Your task to perform on an android device: turn on notifications settings in the gmail app Image 0: 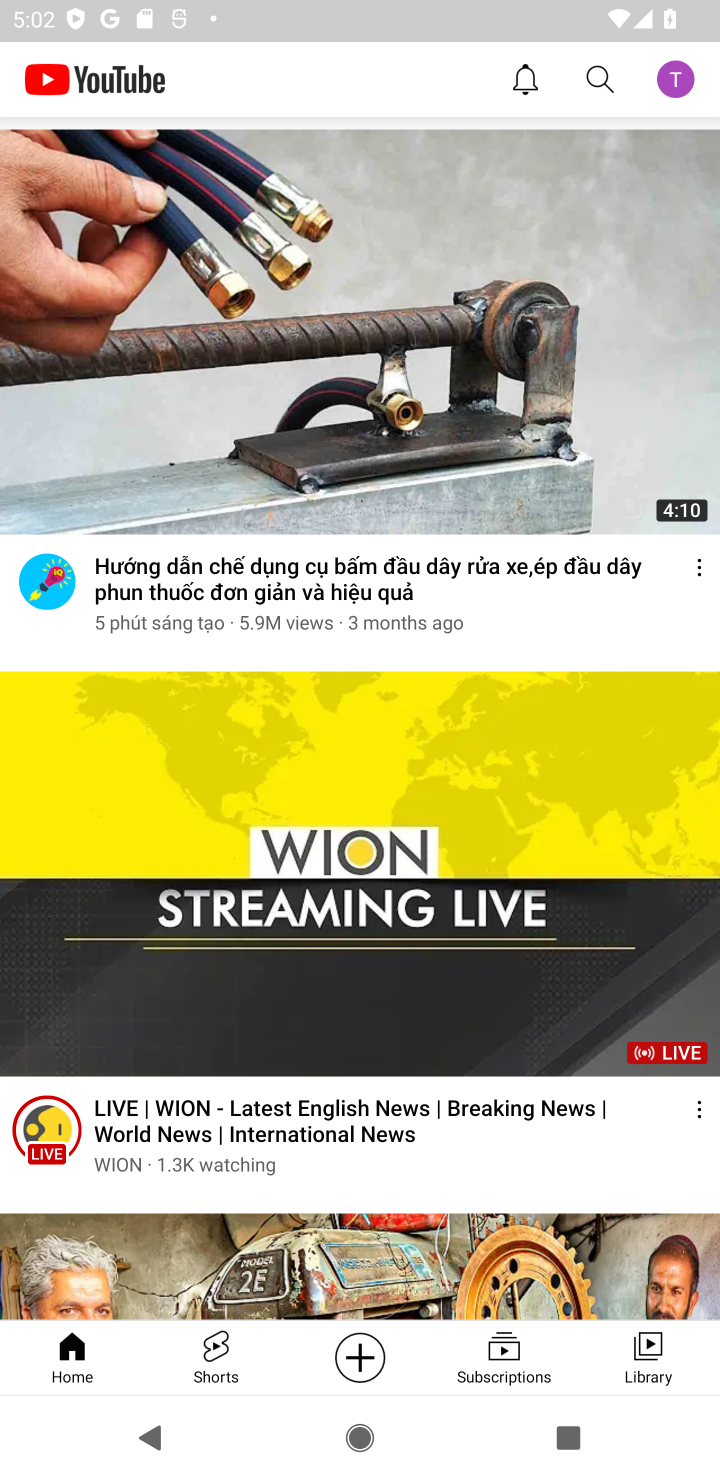
Step 0: press back button
Your task to perform on an android device: turn on notifications settings in the gmail app Image 1: 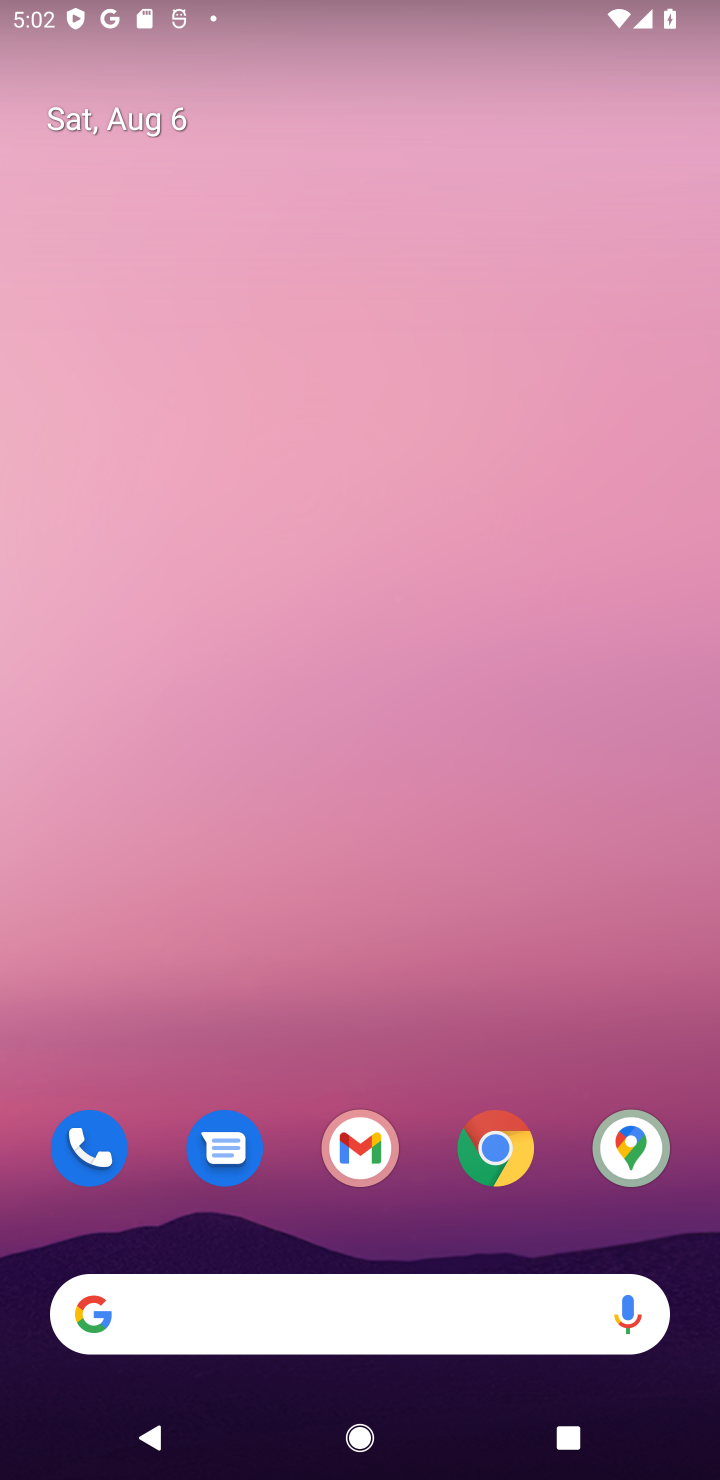
Step 1: press back button
Your task to perform on an android device: turn on notifications settings in the gmail app Image 2: 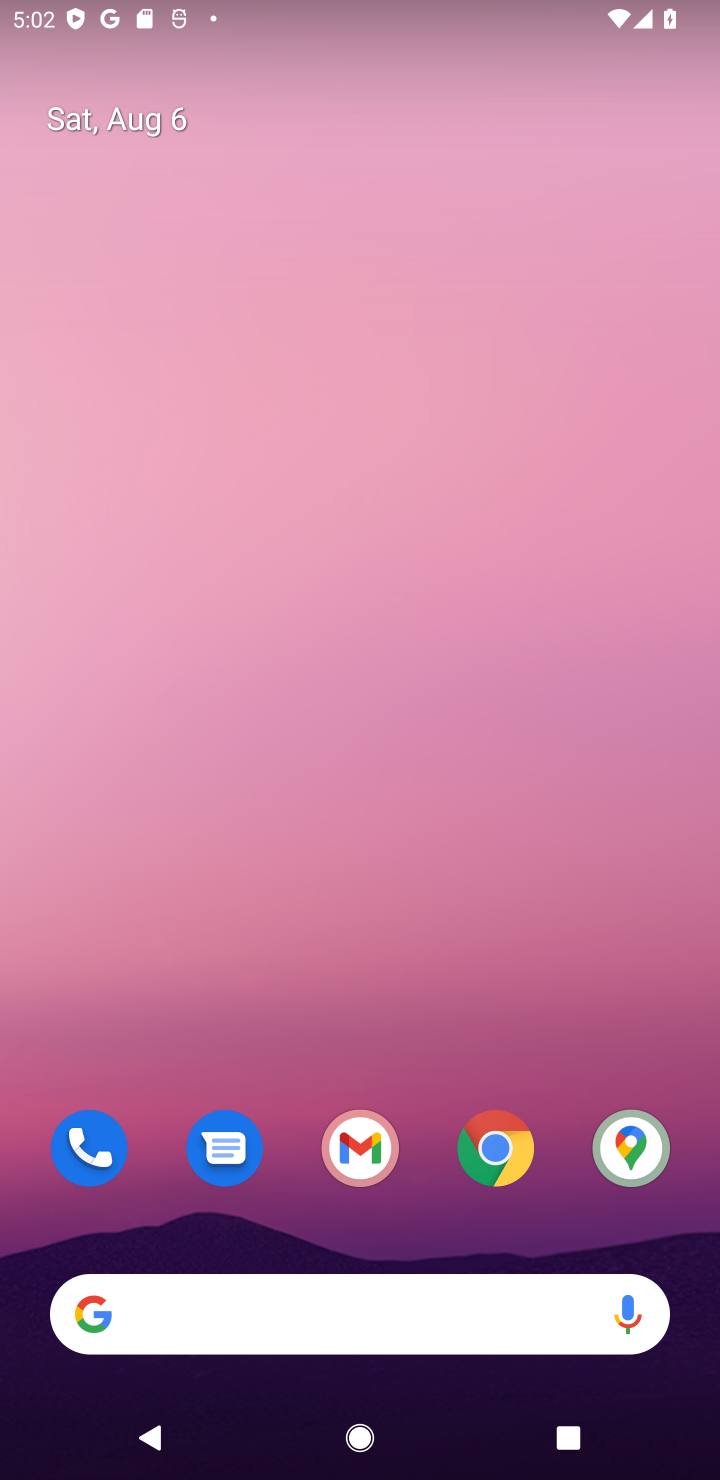
Step 2: drag from (448, 1242) to (490, 97)
Your task to perform on an android device: turn on notifications settings in the gmail app Image 3: 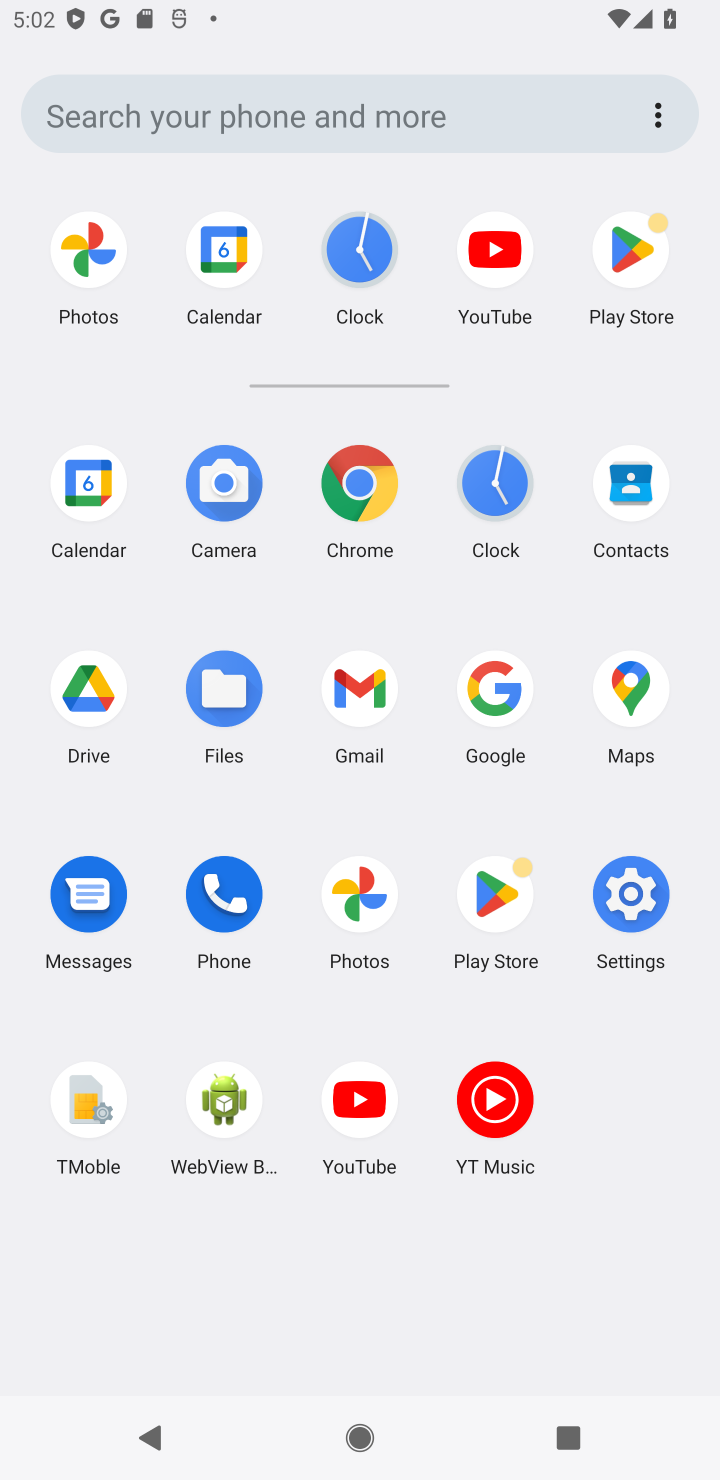
Step 3: click (639, 913)
Your task to perform on an android device: turn on notifications settings in the gmail app Image 4: 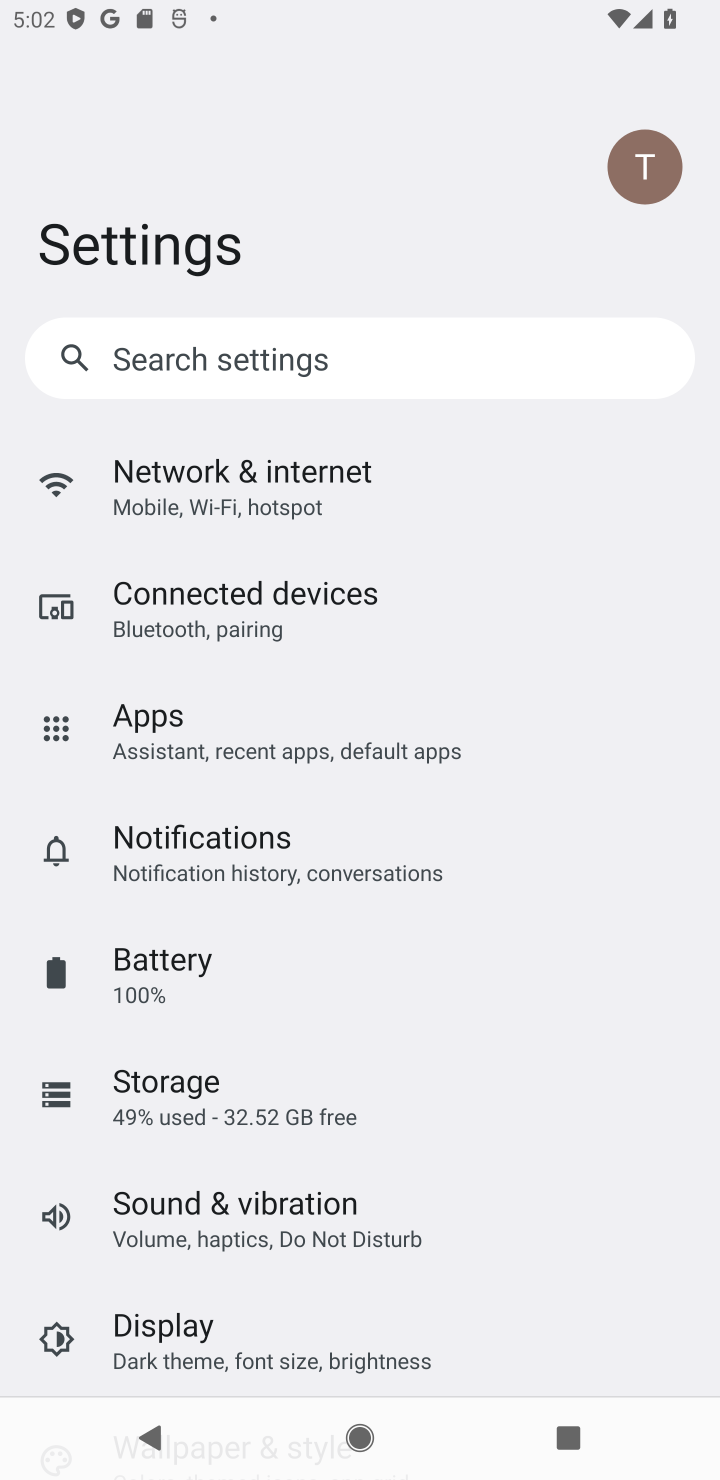
Step 4: press home button
Your task to perform on an android device: turn on notifications settings in the gmail app Image 5: 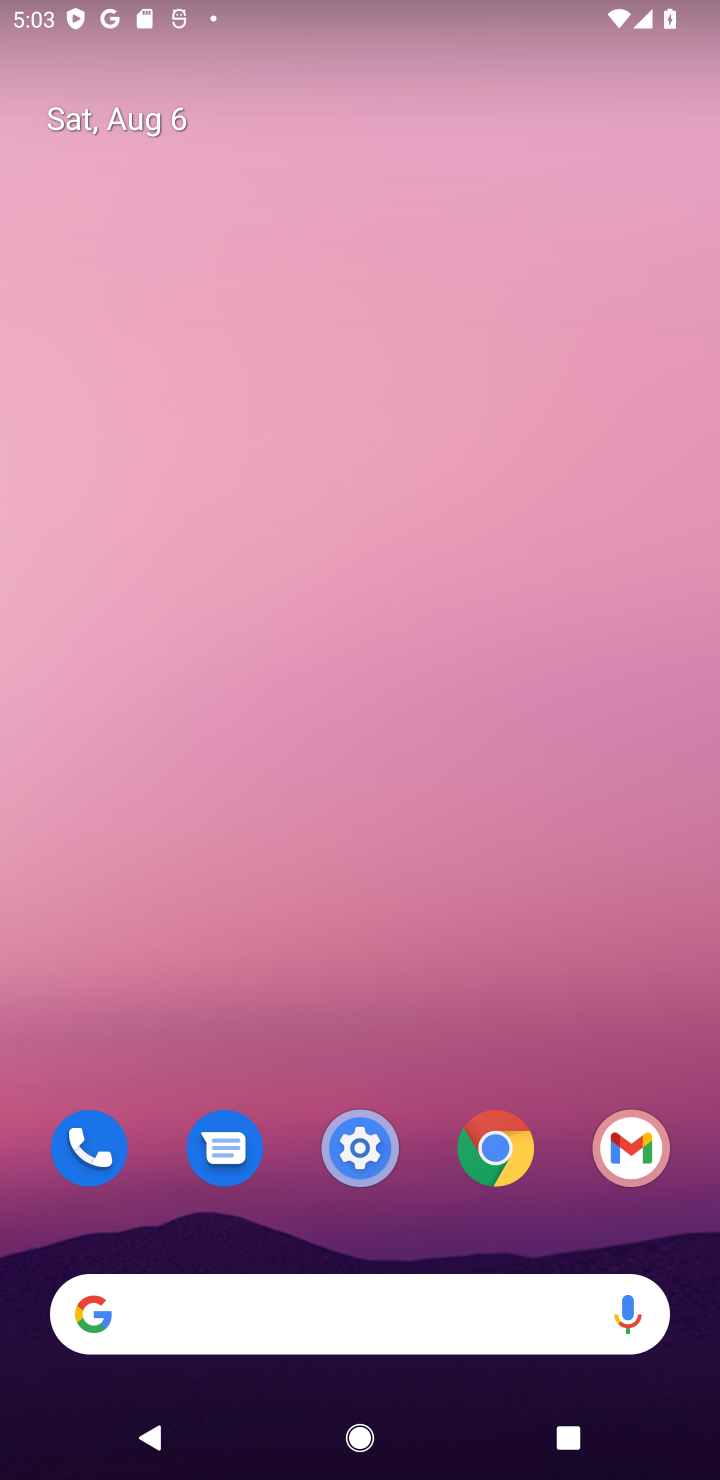
Step 5: drag from (384, 1269) to (293, 30)
Your task to perform on an android device: turn on notifications settings in the gmail app Image 6: 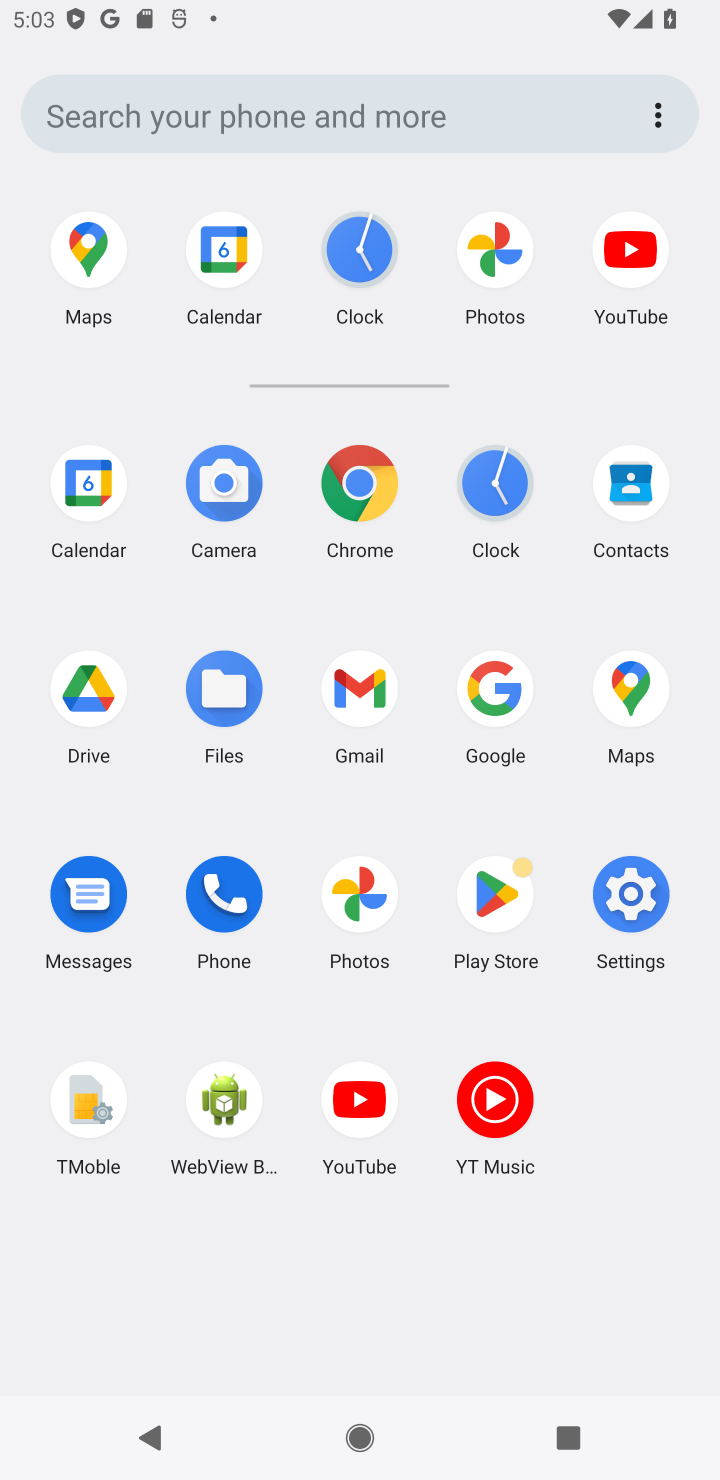
Step 6: click (371, 655)
Your task to perform on an android device: turn on notifications settings in the gmail app Image 7: 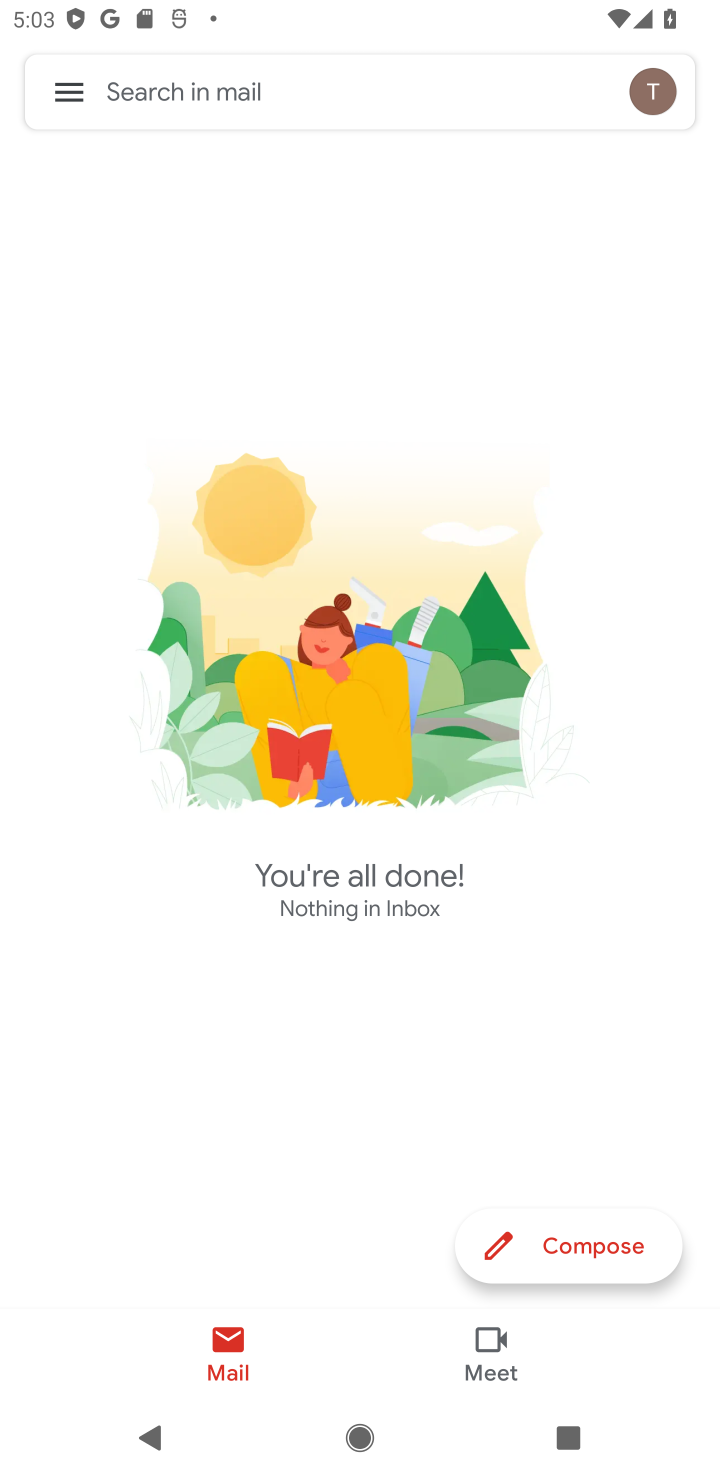
Step 7: click (67, 103)
Your task to perform on an android device: turn on notifications settings in the gmail app Image 8: 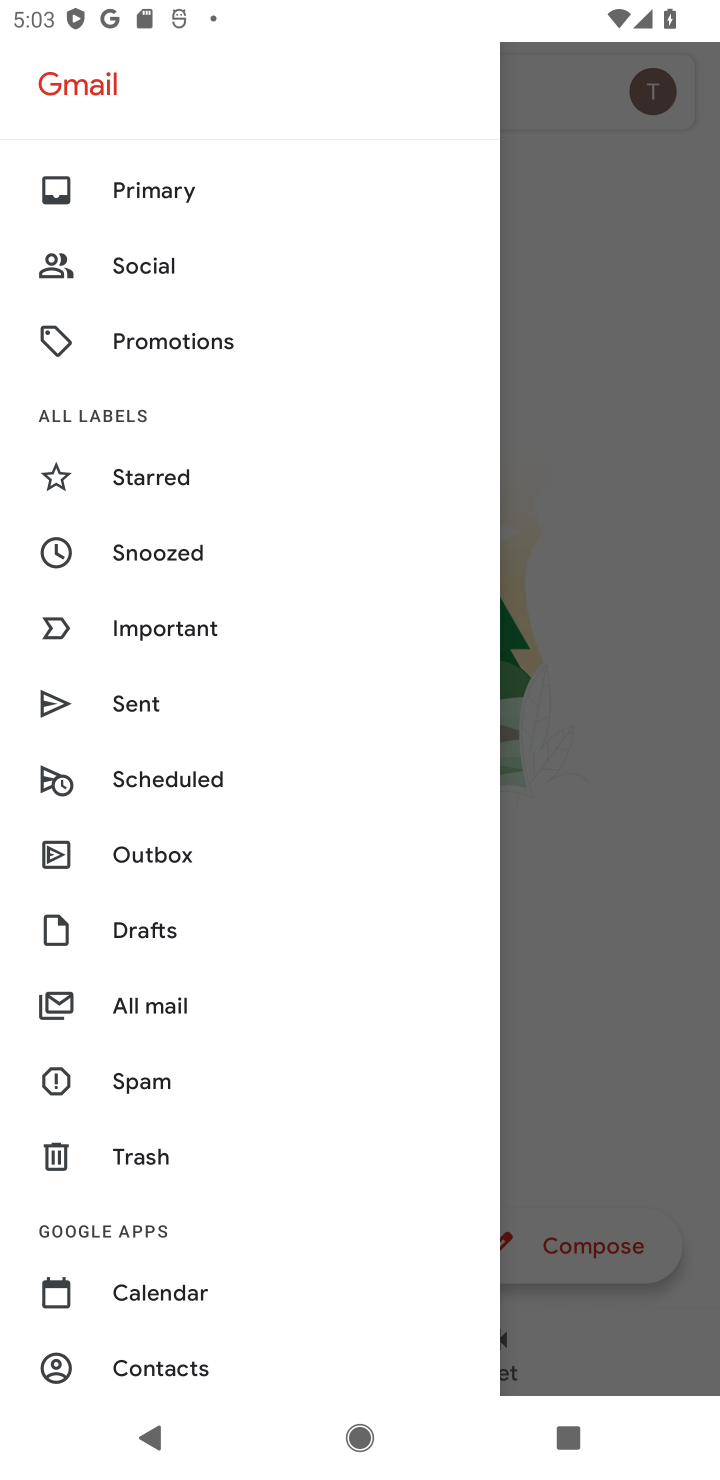
Step 8: drag from (260, 1228) to (184, 268)
Your task to perform on an android device: turn on notifications settings in the gmail app Image 9: 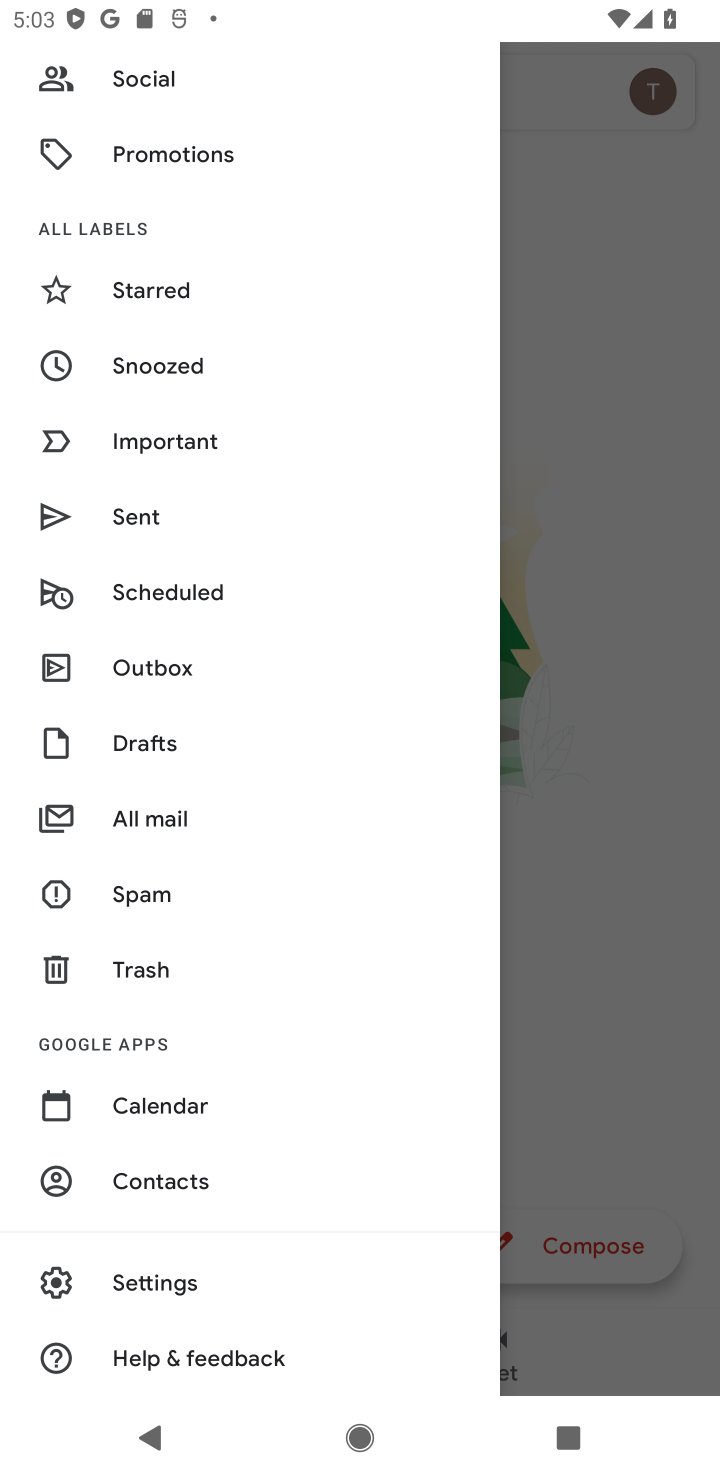
Step 9: click (128, 1299)
Your task to perform on an android device: turn on notifications settings in the gmail app Image 10: 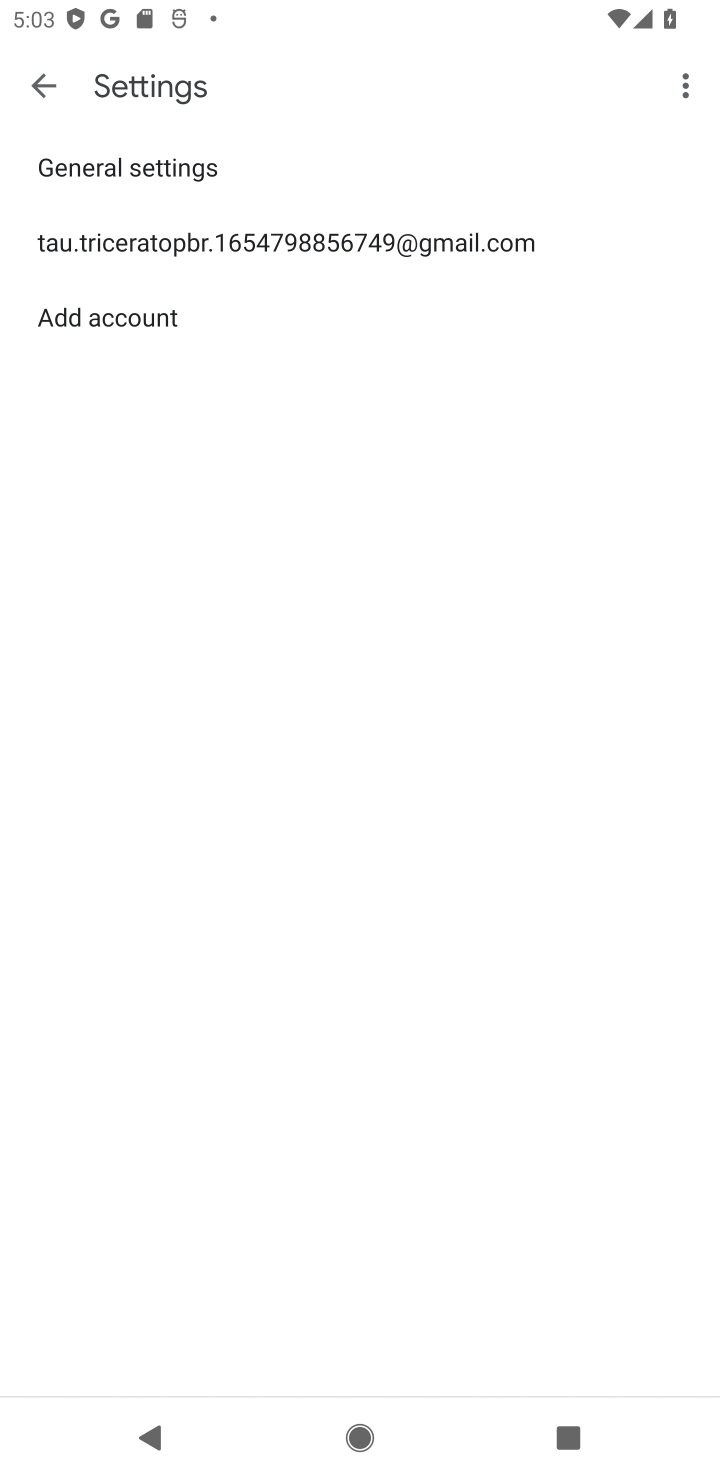
Step 10: click (117, 153)
Your task to perform on an android device: turn on notifications settings in the gmail app Image 11: 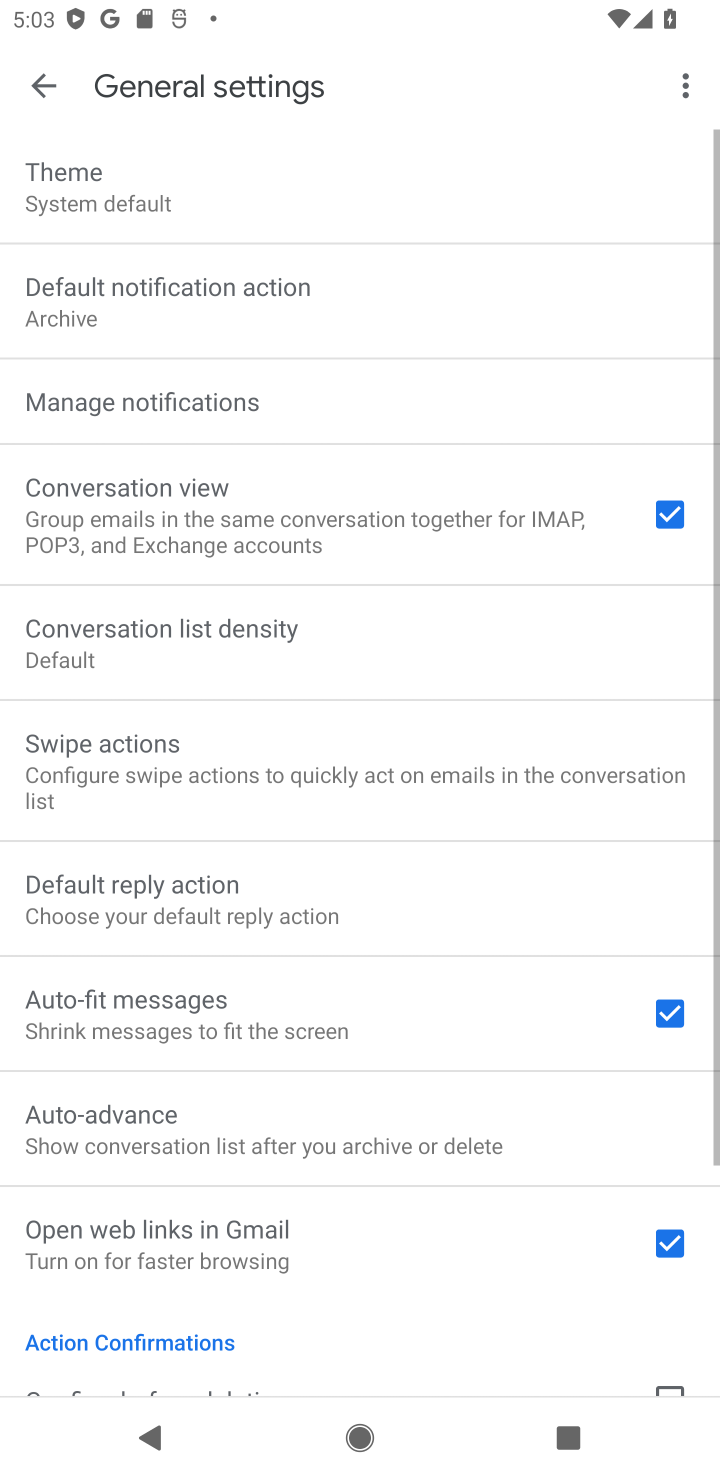
Step 11: click (183, 413)
Your task to perform on an android device: turn on notifications settings in the gmail app Image 12: 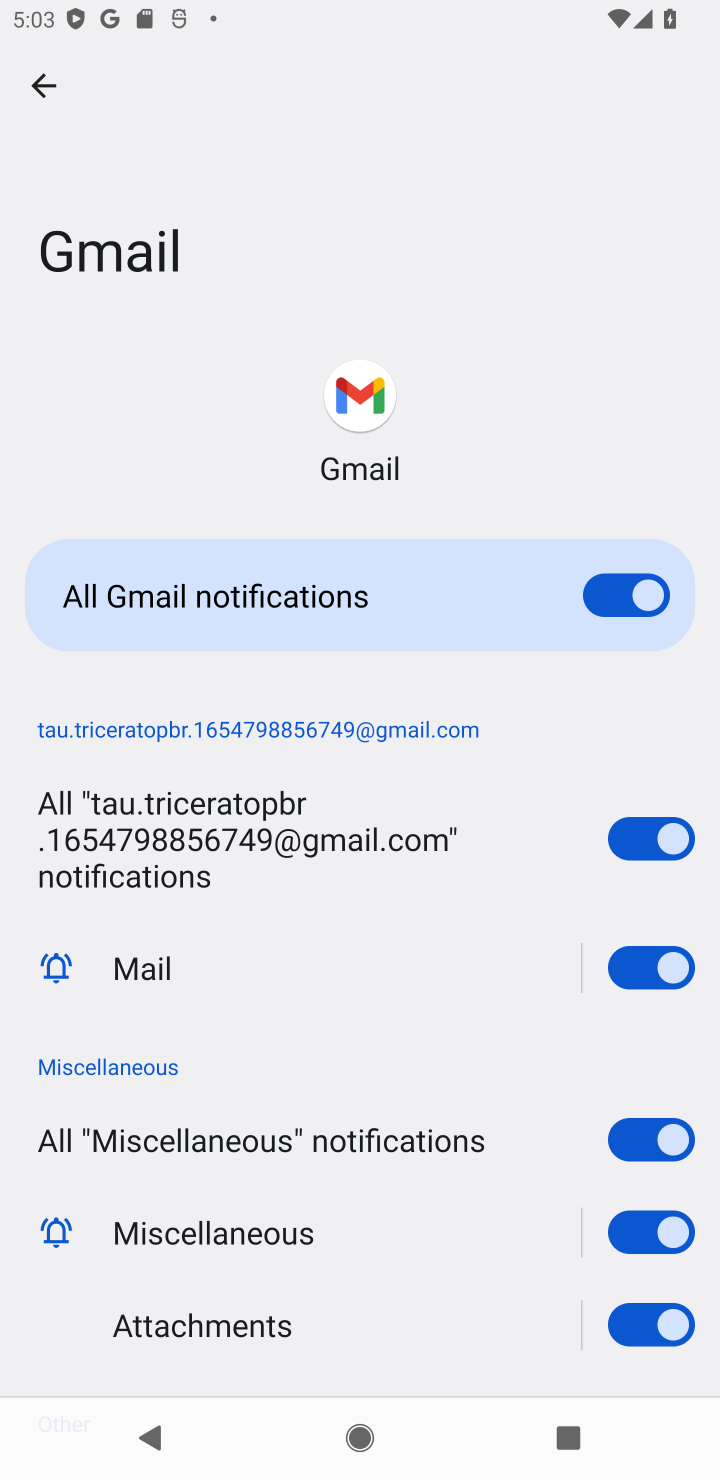
Step 12: task complete